Your task to perform on an android device: Turn on the flashlight Image 0: 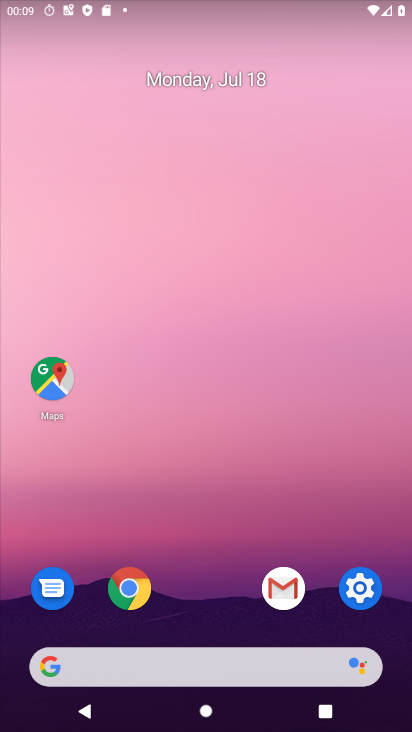
Step 0: press home button
Your task to perform on an android device: Turn on the flashlight Image 1: 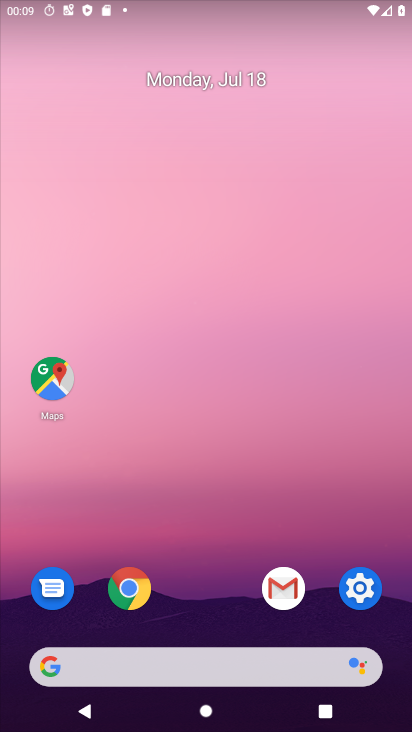
Step 1: click (350, 590)
Your task to perform on an android device: Turn on the flashlight Image 2: 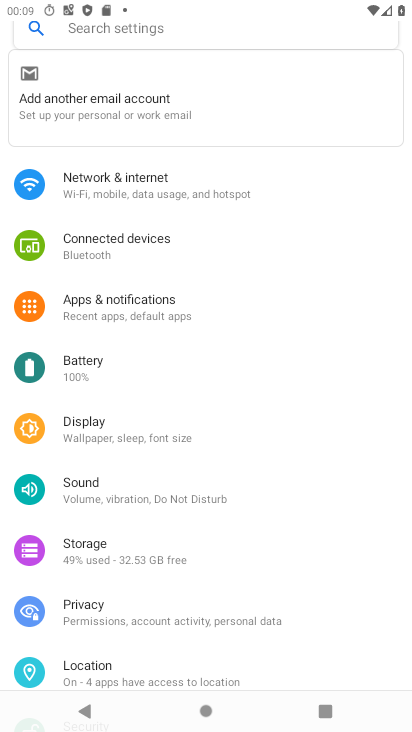
Step 2: click (123, 36)
Your task to perform on an android device: Turn on the flashlight Image 3: 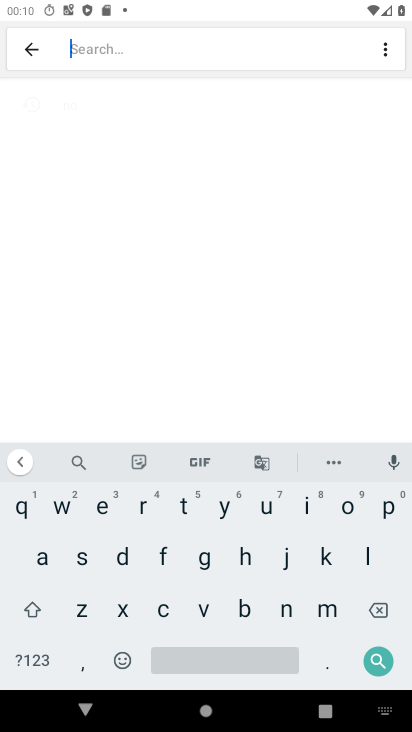
Step 3: click (152, 549)
Your task to perform on an android device: Turn on the flashlight Image 4: 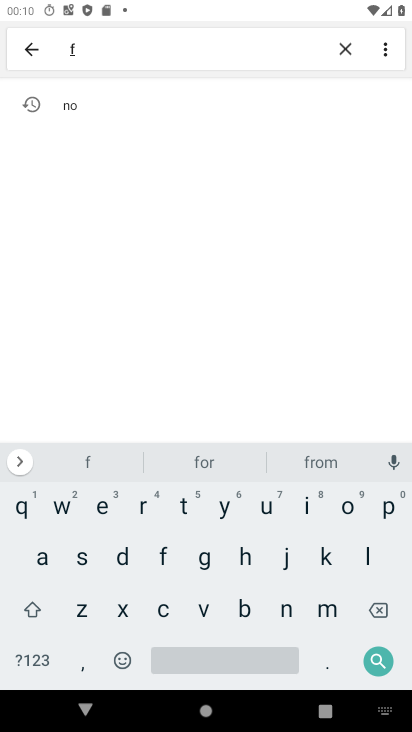
Step 4: click (369, 549)
Your task to perform on an android device: Turn on the flashlight Image 5: 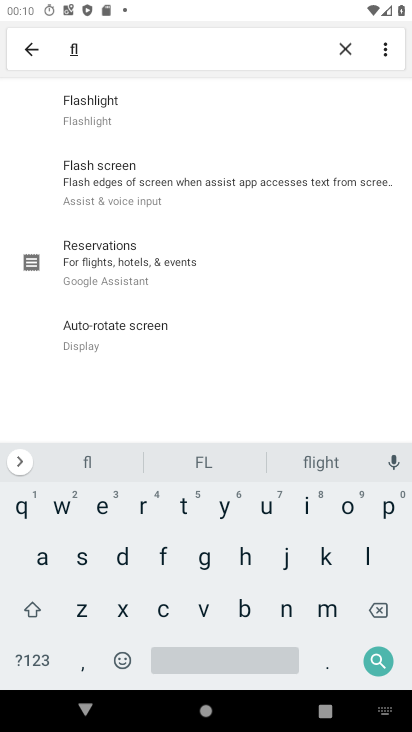
Step 5: click (138, 96)
Your task to perform on an android device: Turn on the flashlight Image 6: 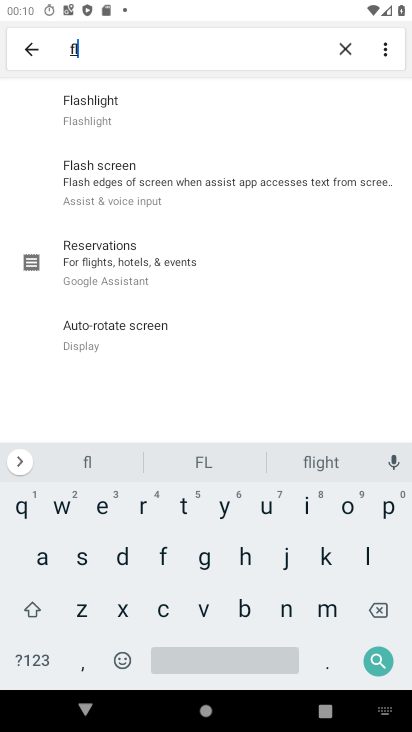
Step 6: click (135, 96)
Your task to perform on an android device: Turn on the flashlight Image 7: 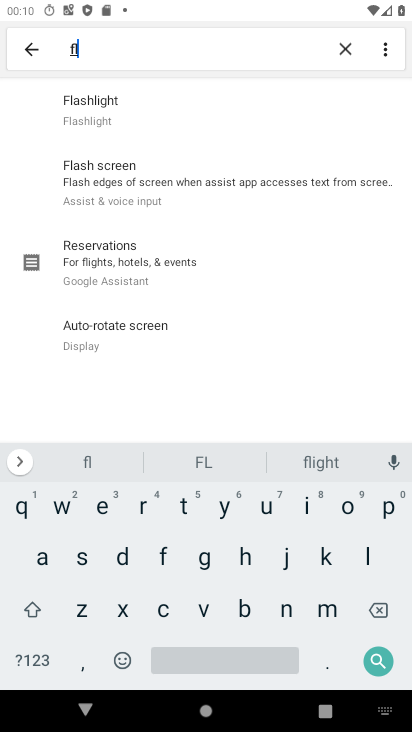
Step 7: task complete